Your task to perform on an android device: delete location history Image 0: 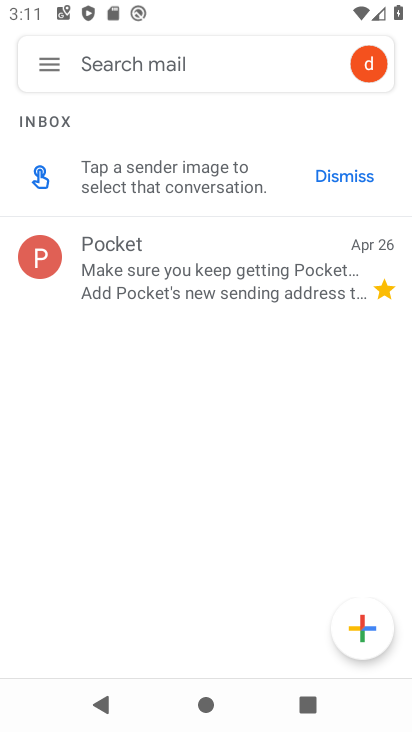
Step 0: press home button
Your task to perform on an android device: delete location history Image 1: 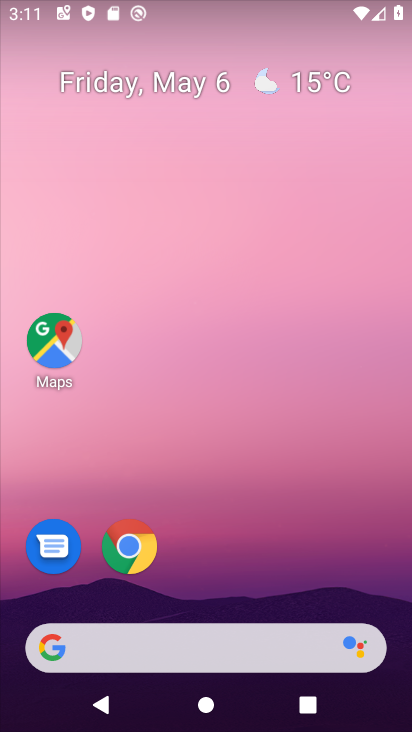
Step 1: drag from (178, 628) to (177, 270)
Your task to perform on an android device: delete location history Image 2: 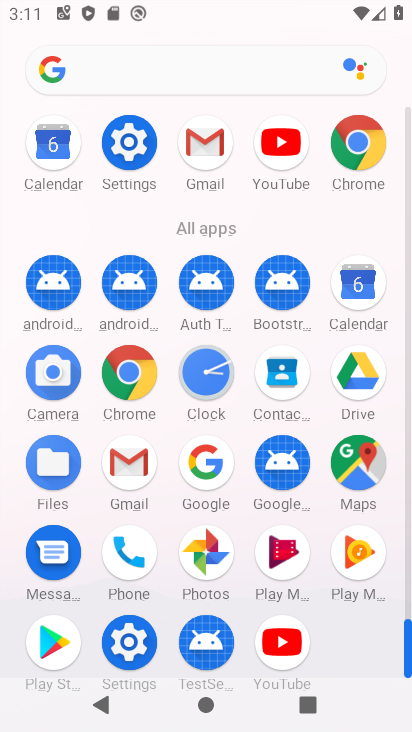
Step 2: click (126, 133)
Your task to perform on an android device: delete location history Image 3: 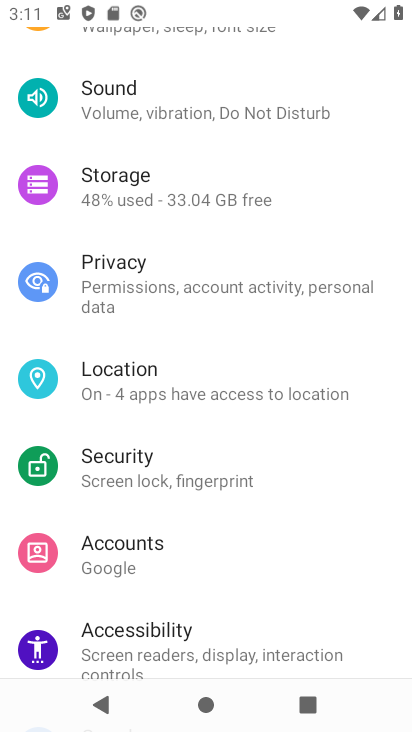
Step 3: click (134, 388)
Your task to perform on an android device: delete location history Image 4: 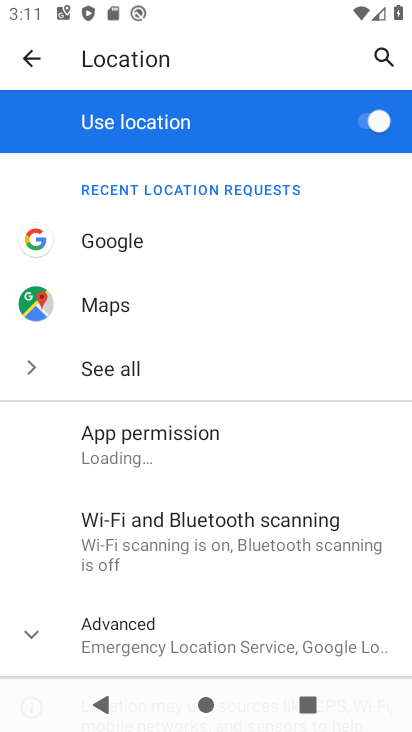
Step 4: drag from (151, 629) to (120, 398)
Your task to perform on an android device: delete location history Image 5: 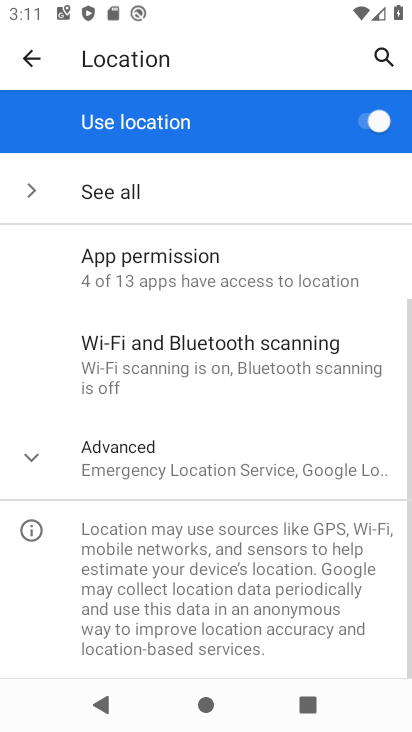
Step 5: click (126, 451)
Your task to perform on an android device: delete location history Image 6: 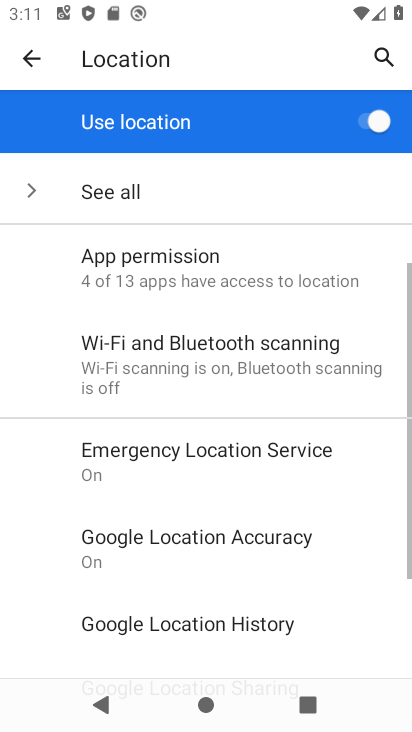
Step 6: drag from (176, 640) to (178, 437)
Your task to perform on an android device: delete location history Image 7: 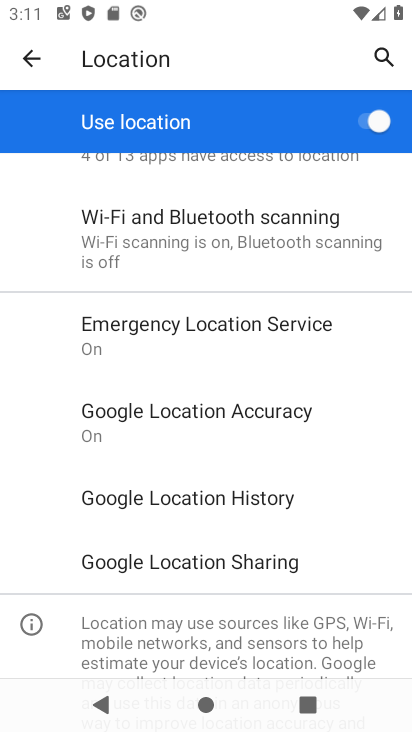
Step 7: click (187, 498)
Your task to perform on an android device: delete location history Image 8: 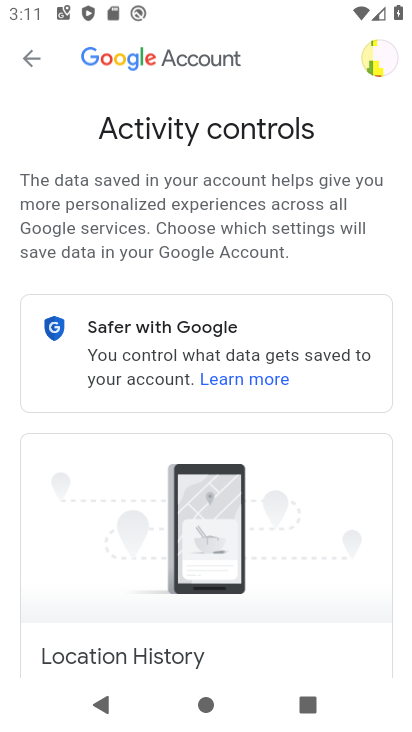
Step 8: drag from (215, 640) to (228, 374)
Your task to perform on an android device: delete location history Image 9: 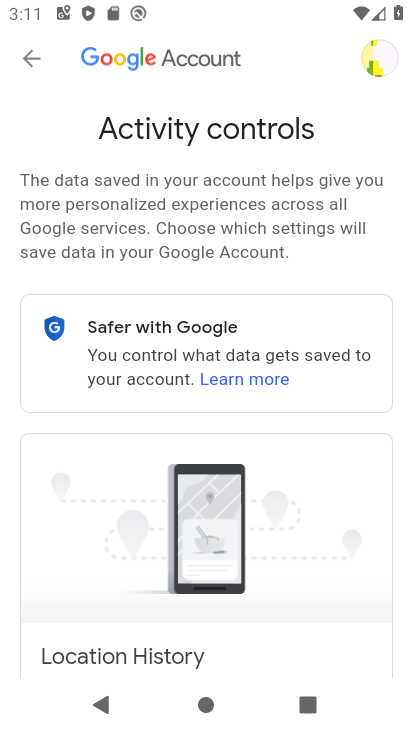
Step 9: drag from (170, 646) to (183, 305)
Your task to perform on an android device: delete location history Image 10: 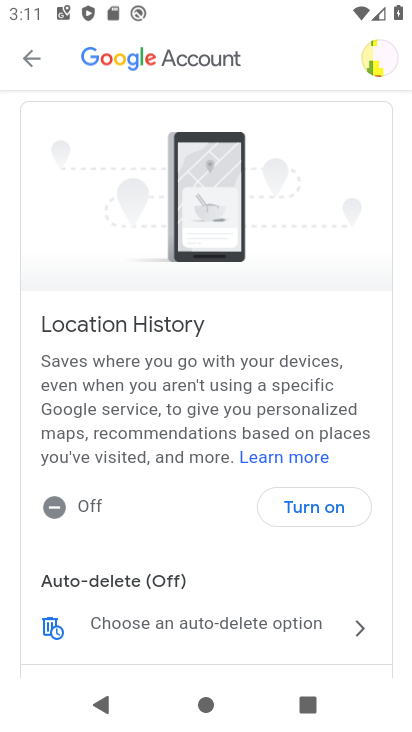
Step 10: drag from (204, 603) to (210, 316)
Your task to perform on an android device: delete location history Image 11: 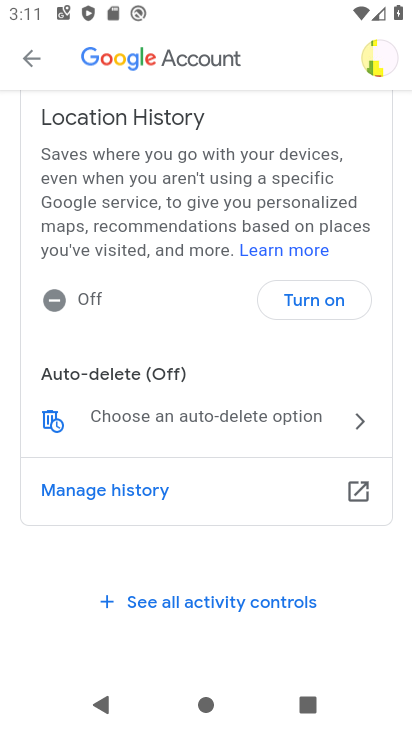
Step 11: click (195, 408)
Your task to perform on an android device: delete location history Image 12: 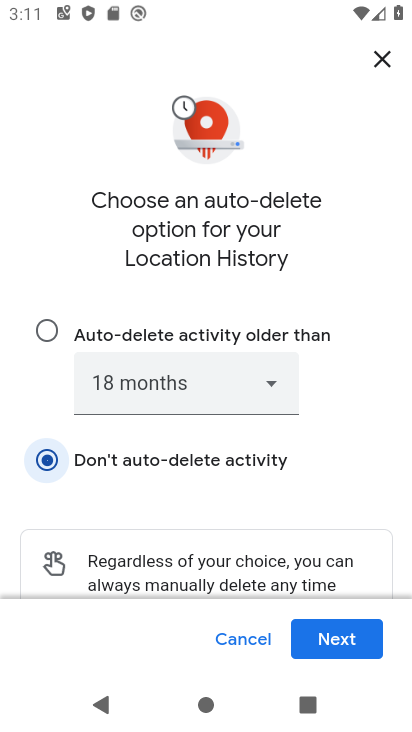
Step 12: click (332, 641)
Your task to perform on an android device: delete location history Image 13: 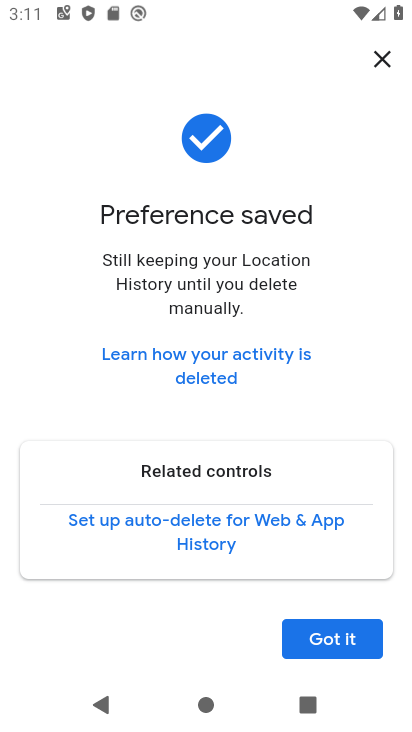
Step 13: click (317, 640)
Your task to perform on an android device: delete location history Image 14: 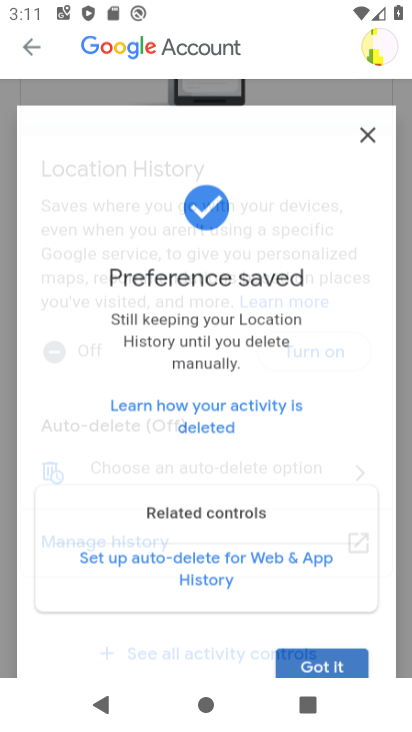
Step 14: click (316, 639)
Your task to perform on an android device: delete location history Image 15: 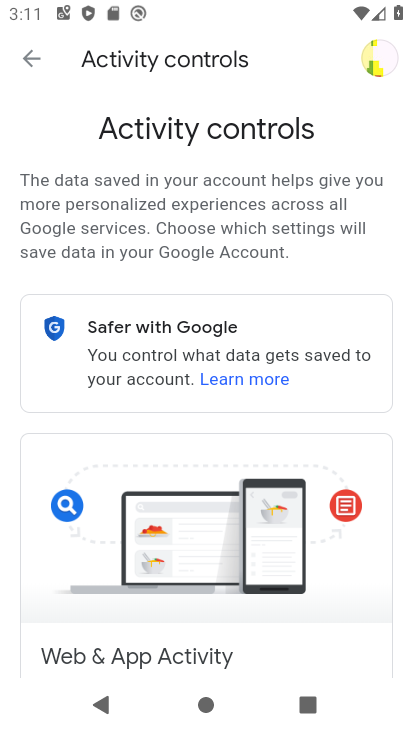
Step 15: task complete